Your task to perform on an android device: Open Google Maps and go to "Timeline" Image 0: 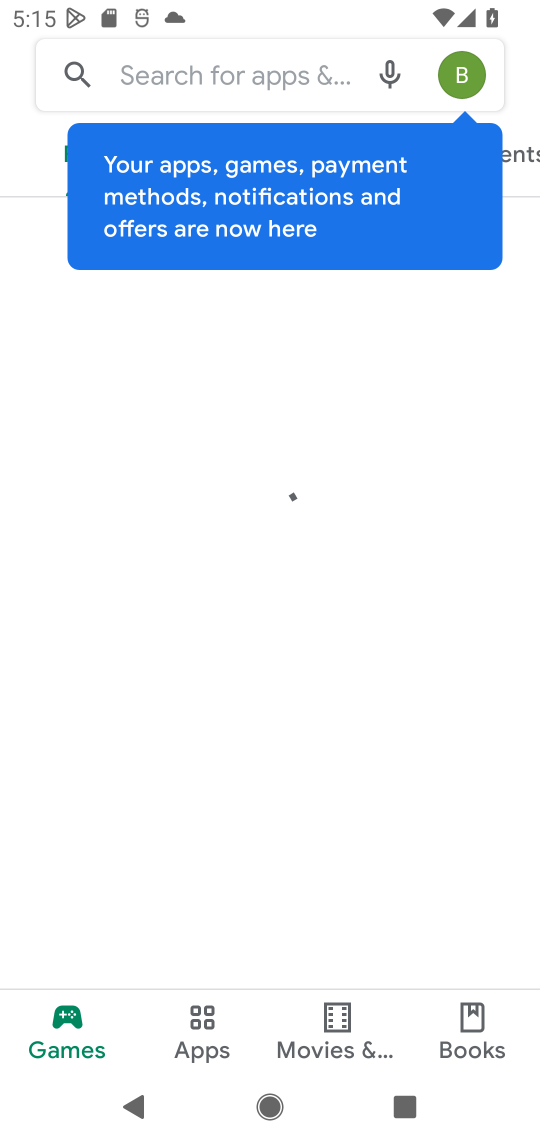
Step 0: press home button
Your task to perform on an android device: Open Google Maps and go to "Timeline" Image 1: 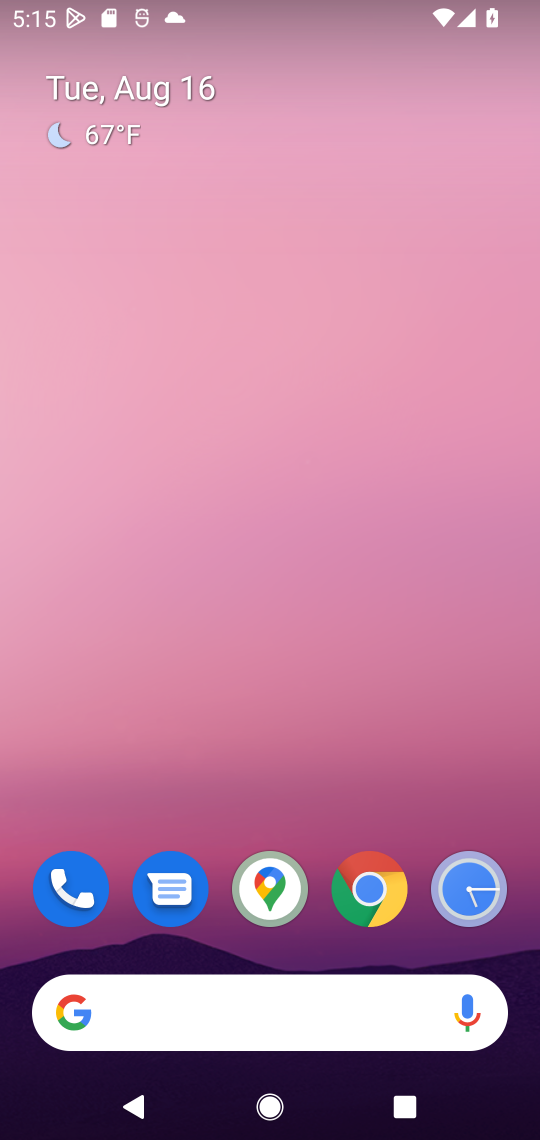
Step 1: drag from (418, 764) to (495, 380)
Your task to perform on an android device: Open Google Maps and go to "Timeline" Image 2: 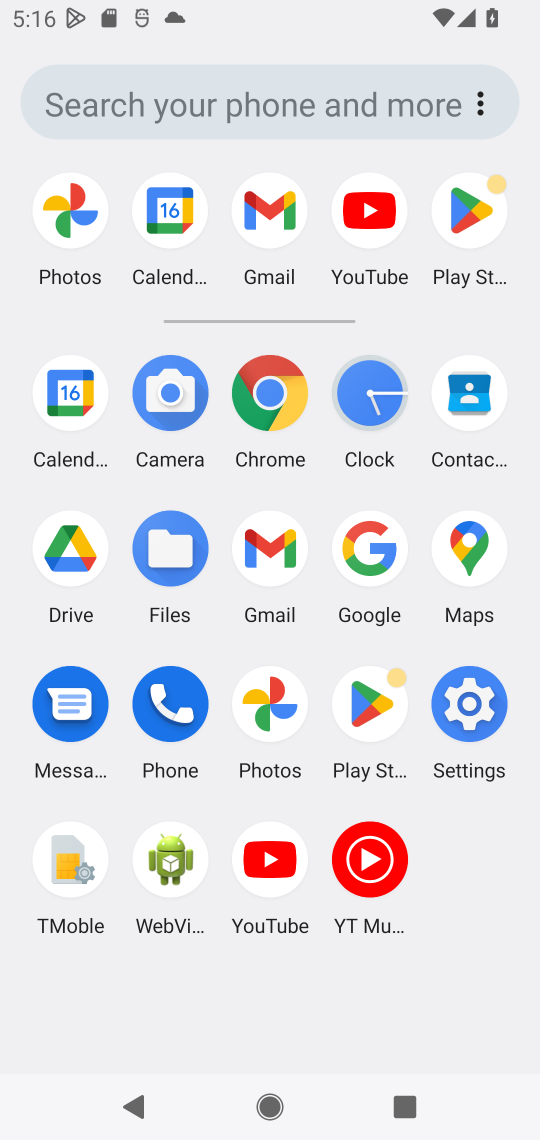
Step 2: click (478, 553)
Your task to perform on an android device: Open Google Maps and go to "Timeline" Image 3: 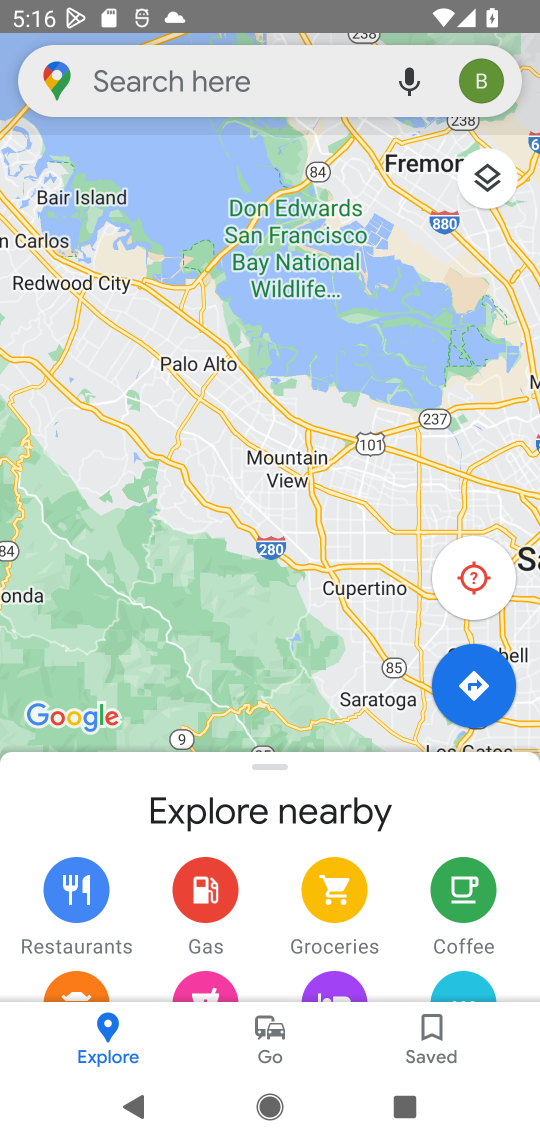
Step 3: task complete